Your task to perform on an android device: turn off data saver in the chrome app Image 0: 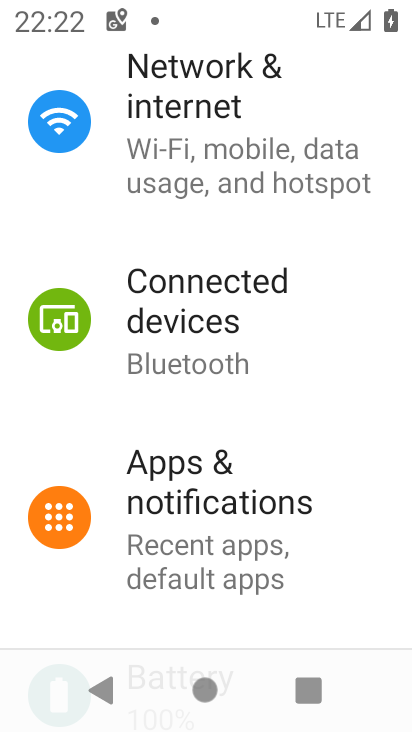
Step 0: press home button
Your task to perform on an android device: turn off data saver in the chrome app Image 1: 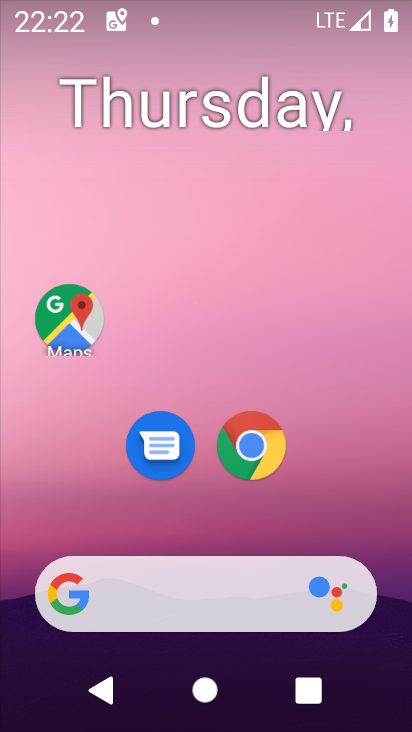
Step 1: drag from (226, 520) to (240, 205)
Your task to perform on an android device: turn off data saver in the chrome app Image 2: 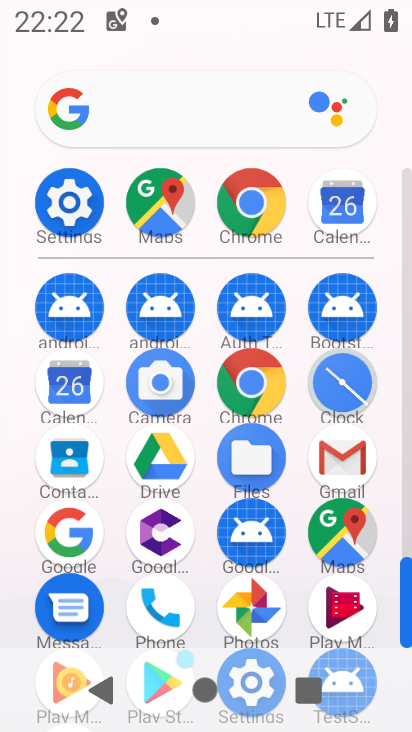
Step 2: drag from (210, 267) to (222, 101)
Your task to perform on an android device: turn off data saver in the chrome app Image 3: 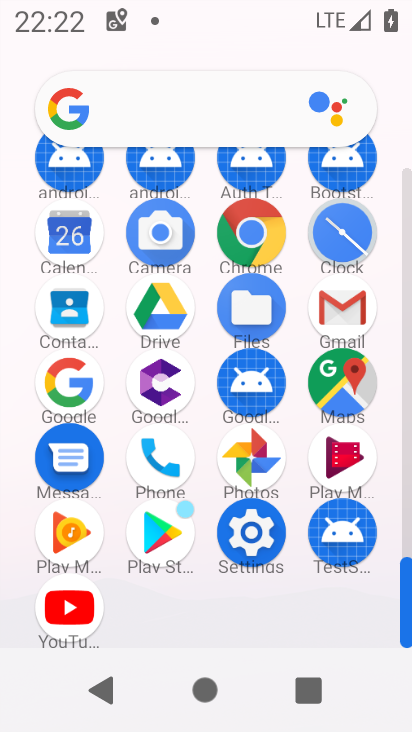
Step 3: click (249, 561)
Your task to perform on an android device: turn off data saver in the chrome app Image 4: 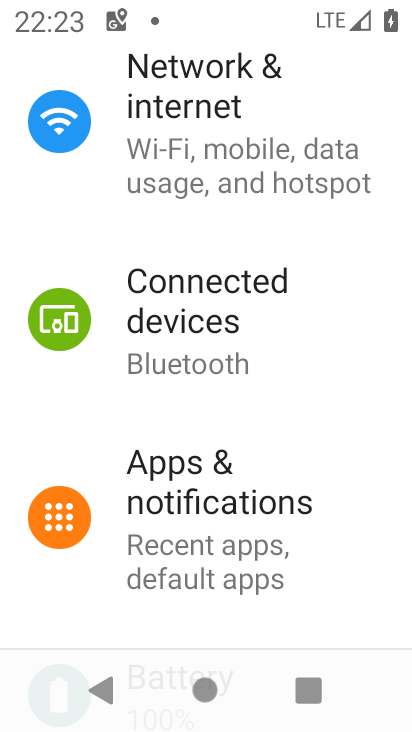
Step 4: press home button
Your task to perform on an android device: turn off data saver in the chrome app Image 5: 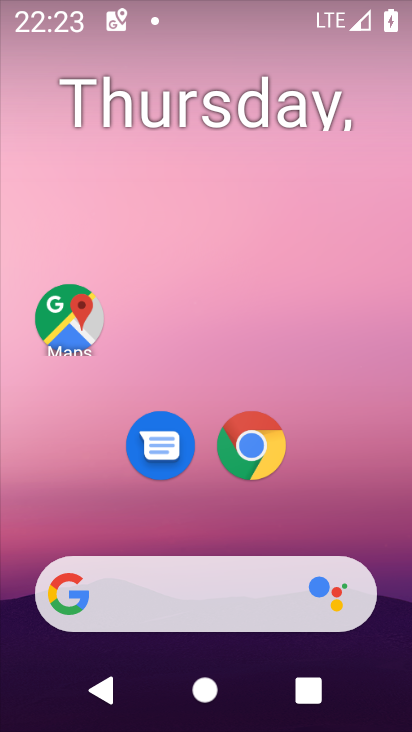
Step 5: drag from (203, 468) to (262, 109)
Your task to perform on an android device: turn off data saver in the chrome app Image 6: 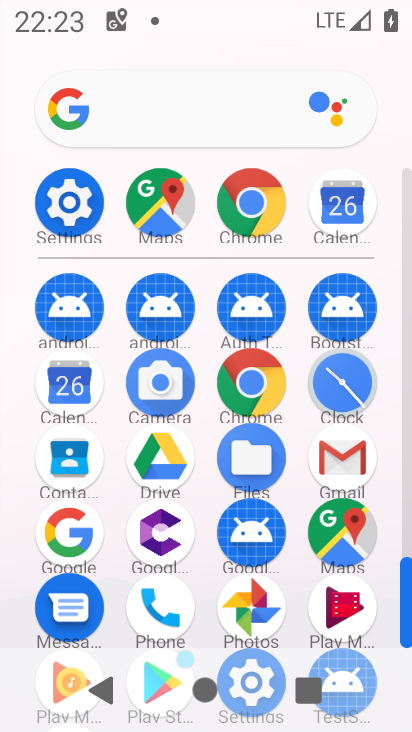
Step 6: click (266, 399)
Your task to perform on an android device: turn off data saver in the chrome app Image 7: 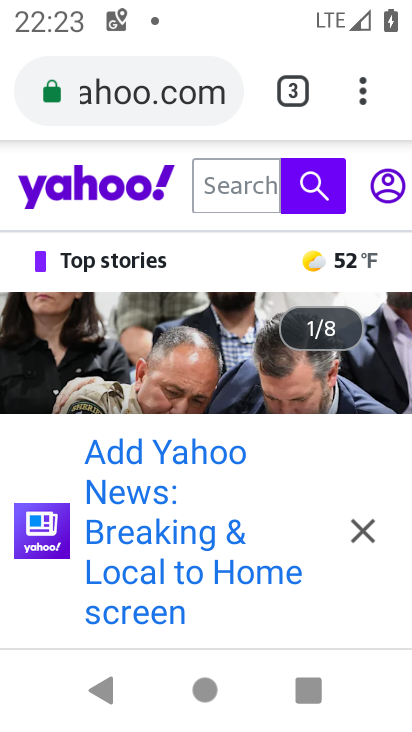
Step 7: click (371, 91)
Your task to perform on an android device: turn off data saver in the chrome app Image 8: 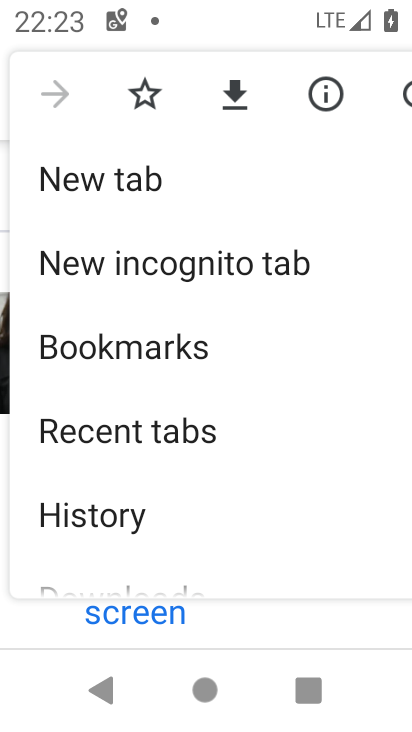
Step 8: drag from (209, 473) to (254, 103)
Your task to perform on an android device: turn off data saver in the chrome app Image 9: 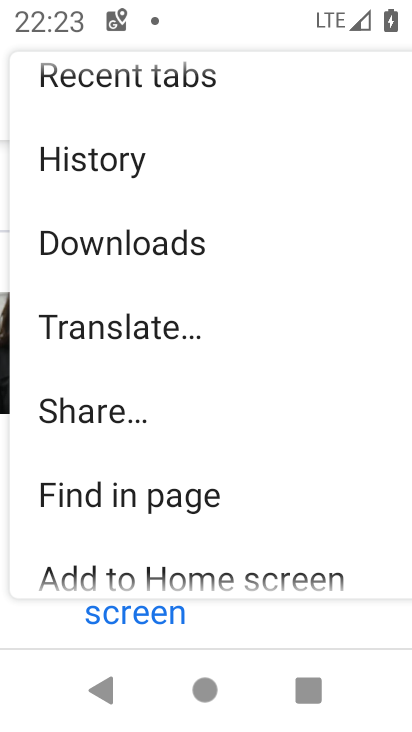
Step 9: drag from (192, 464) to (232, 129)
Your task to perform on an android device: turn off data saver in the chrome app Image 10: 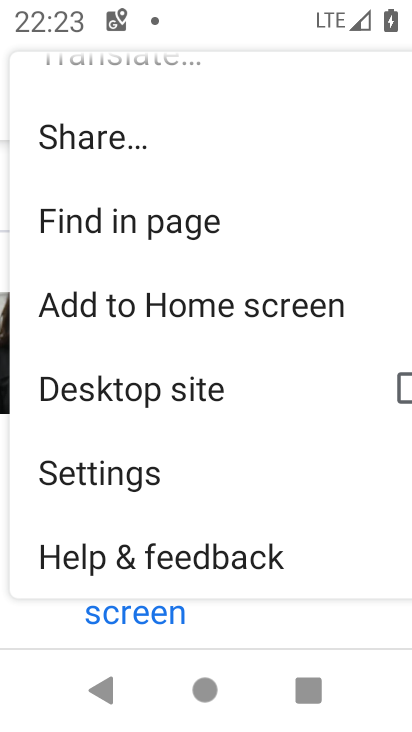
Step 10: click (190, 485)
Your task to perform on an android device: turn off data saver in the chrome app Image 11: 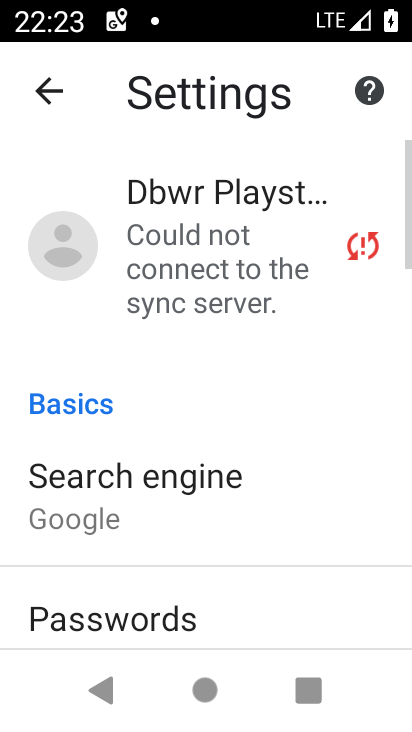
Step 11: drag from (171, 558) to (212, 214)
Your task to perform on an android device: turn off data saver in the chrome app Image 12: 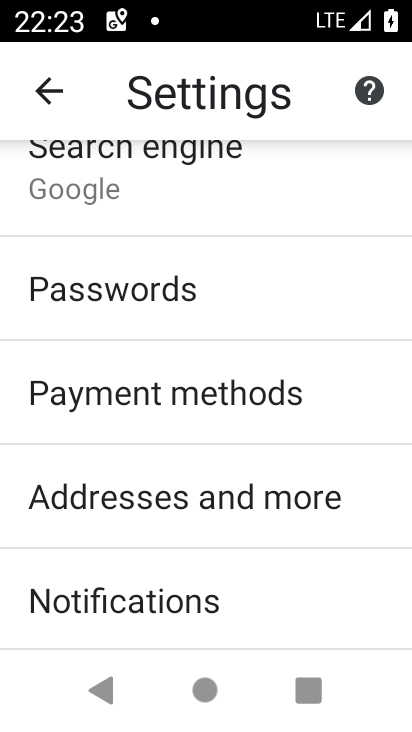
Step 12: drag from (149, 568) to (193, 276)
Your task to perform on an android device: turn off data saver in the chrome app Image 13: 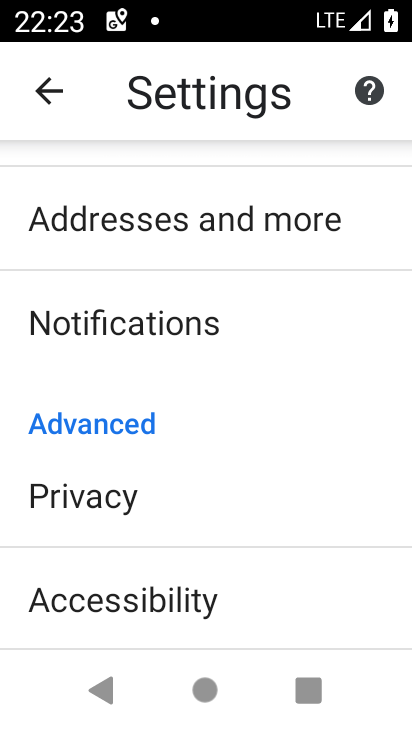
Step 13: drag from (164, 569) to (171, 295)
Your task to perform on an android device: turn off data saver in the chrome app Image 14: 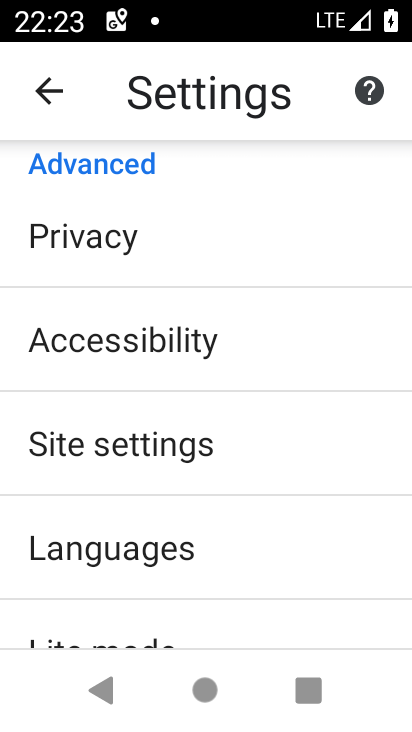
Step 14: drag from (165, 532) to (201, 254)
Your task to perform on an android device: turn off data saver in the chrome app Image 15: 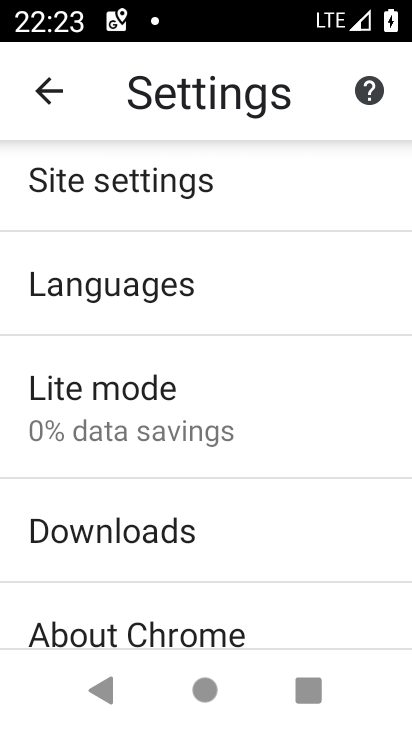
Step 15: click (179, 438)
Your task to perform on an android device: turn off data saver in the chrome app Image 16: 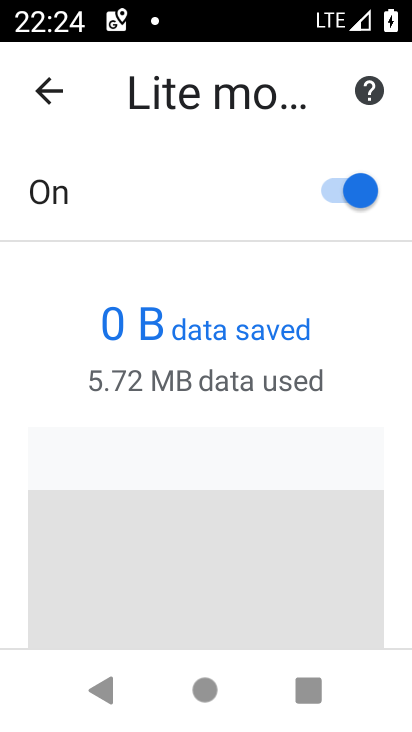
Step 16: click (359, 196)
Your task to perform on an android device: turn off data saver in the chrome app Image 17: 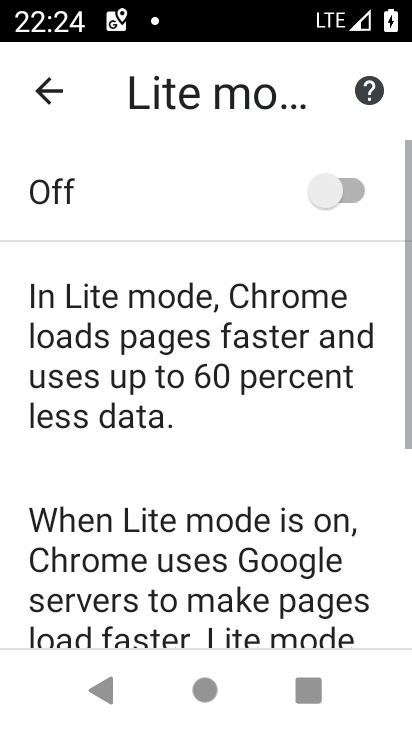
Step 17: task complete